Your task to perform on an android device: Open wifi settings Image 0: 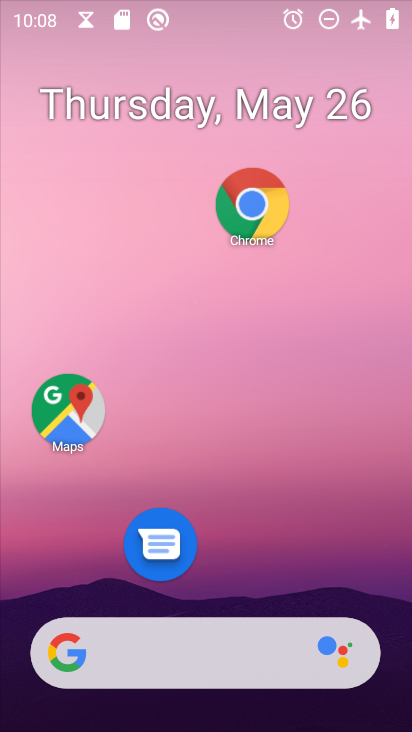
Step 0: press home button
Your task to perform on an android device: Open wifi settings Image 1: 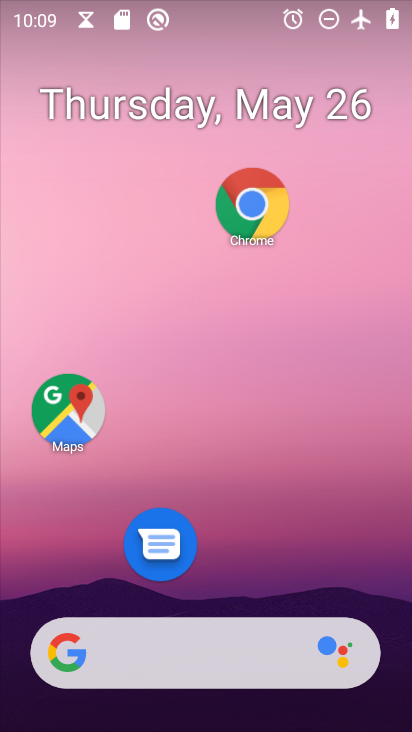
Step 1: drag from (219, 588) to (205, 31)
Your task to perform on an android device: Open wifi settings Image 2: 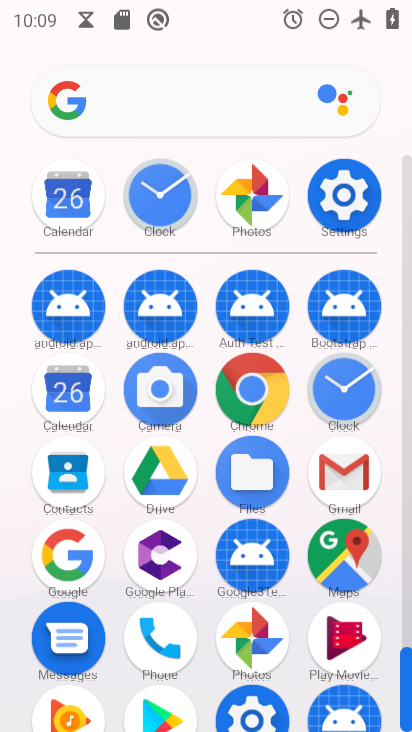
Step 2: click (342, 190)
Your task to perform on an android device: Open wifi settings Image 3: 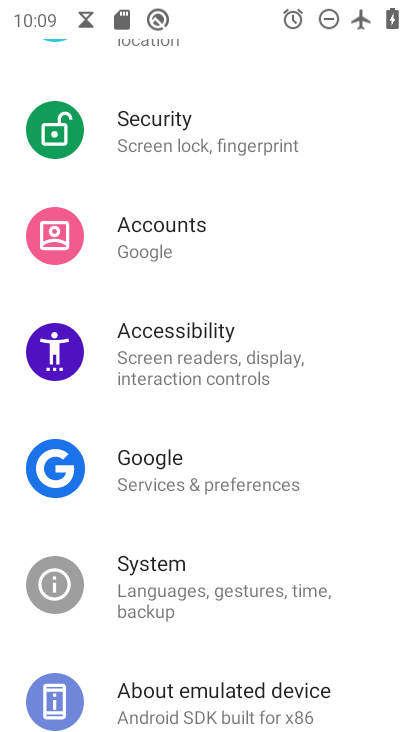
Step 3: drag from (221, 123) to (216, 708)
Your task to perform on an android device: Open wifi settings Image 4: 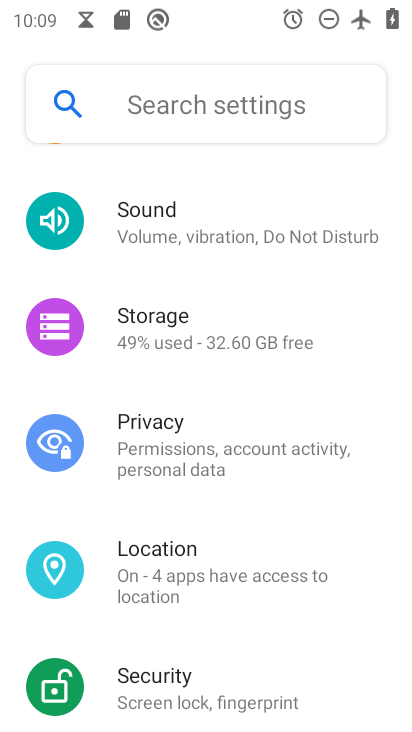
Step 4: drag from (201, 199) to (207, 726)
Your task to perform on an android device: Open wifi settings Image 5: 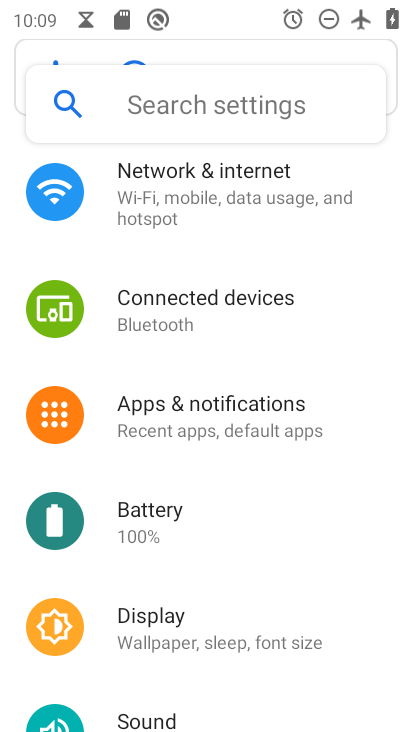
Step 5: click (161, 201)
Your task to perform on an android device: Open wifi settings Image 6: 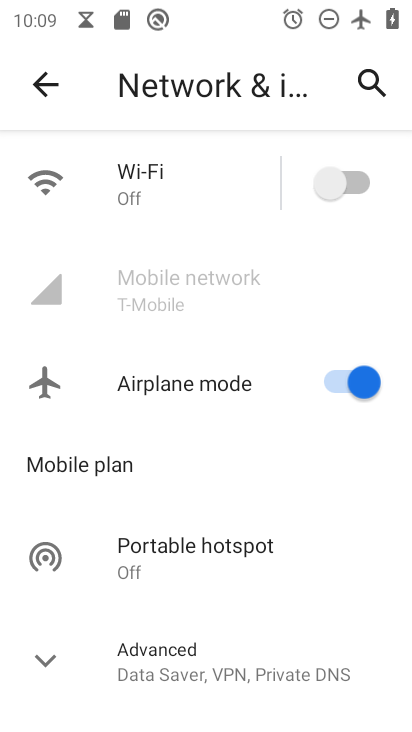
Step 6: click (196, 184)
Your task to perform on an android device: Open wifi settings Image 7: 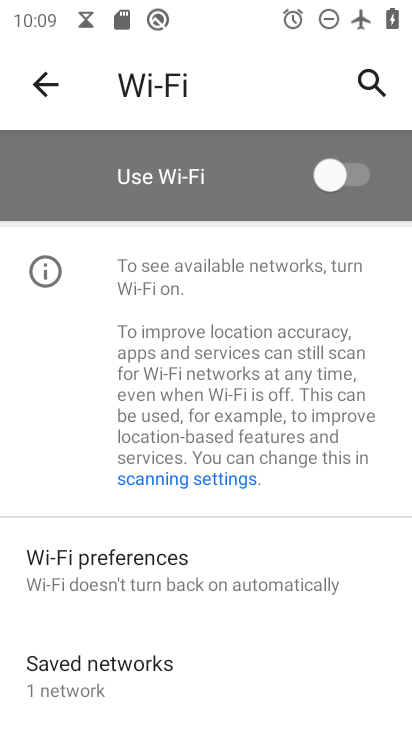
Step 7: click (356, 171)
Your task to perform on an android device: Open wifi settings Image 8: 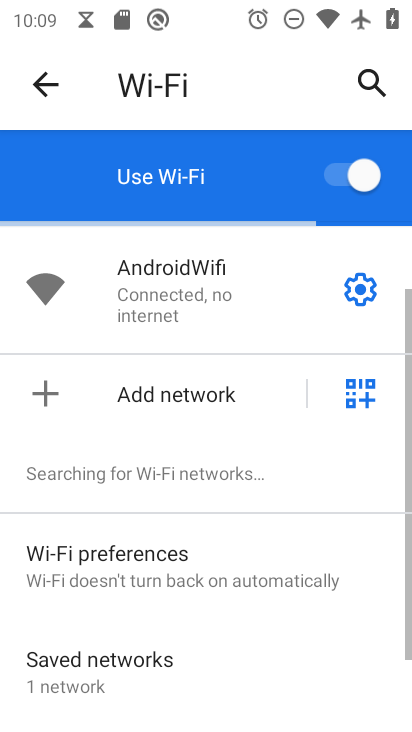
Step 8: task complete